Your task to perform on an android device: Open Chrome and go to the settings page Image 0: 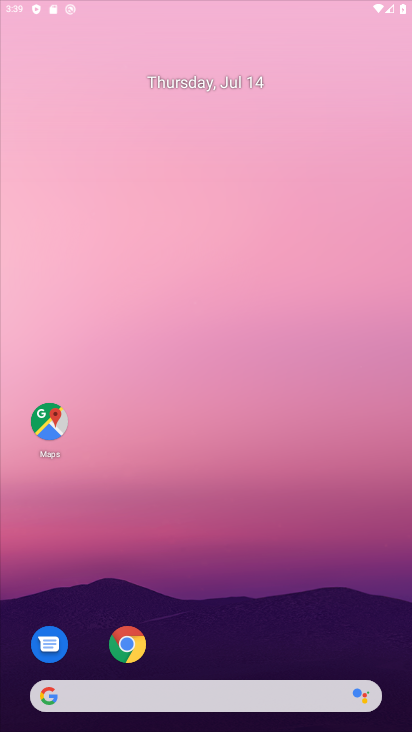
Step 0: drag from (312, 273) to (325, 80)
Your task to perform on an android device: Open Chrome and go to the settings page Image 1: 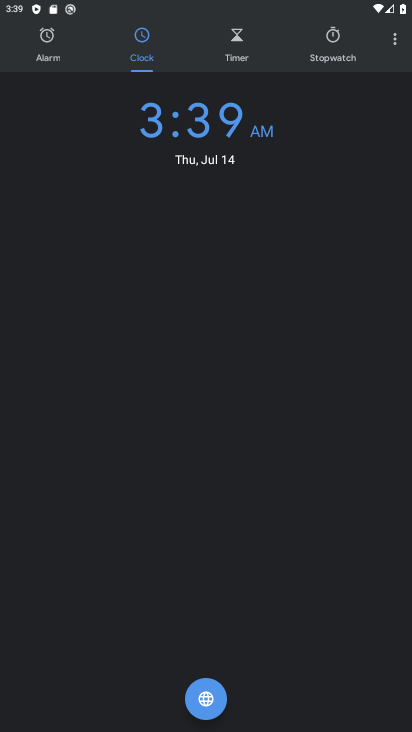
Step 1: press home button
Your task to perform on an android device: Open Chrome and go to the settings page Image 2: 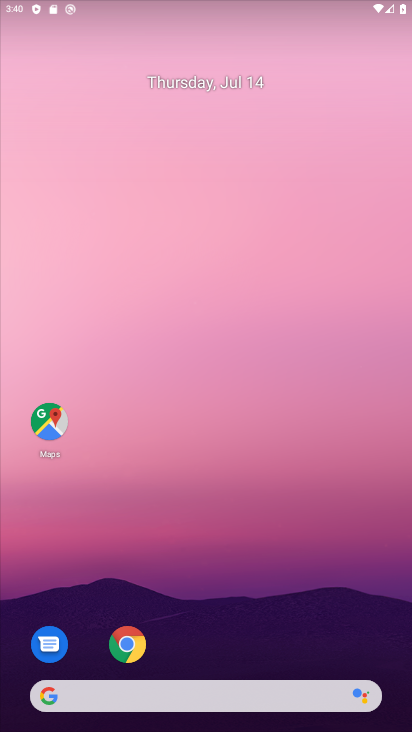
Step 2: drag from (212, 597) to (275, 95)
Your task to perform on an android device: Open Chrome and go to the settings page Image 3: 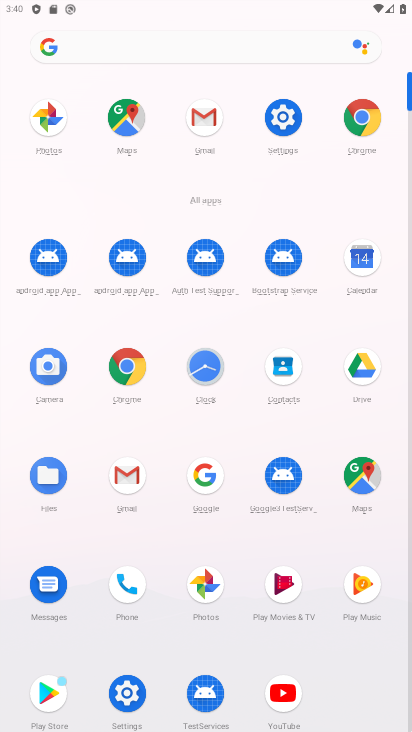
Step 3: click (129, 362)
Your task to perform on an android device: Open Chrome and go to the settings page Image 4: 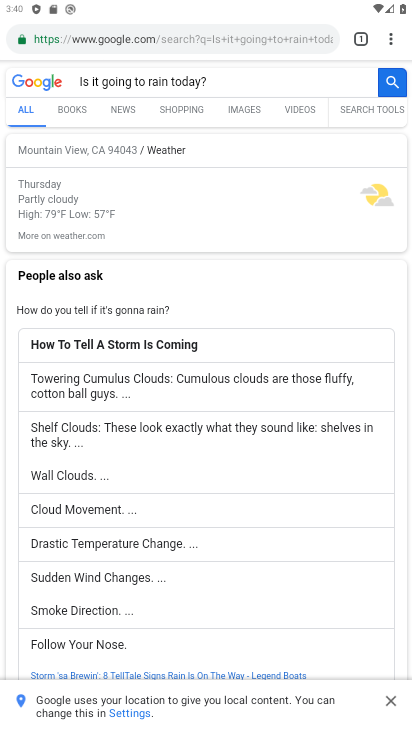
Step 4: task complete